Your task to perform on an android device: visit the assistant section in the google photos Image 0: 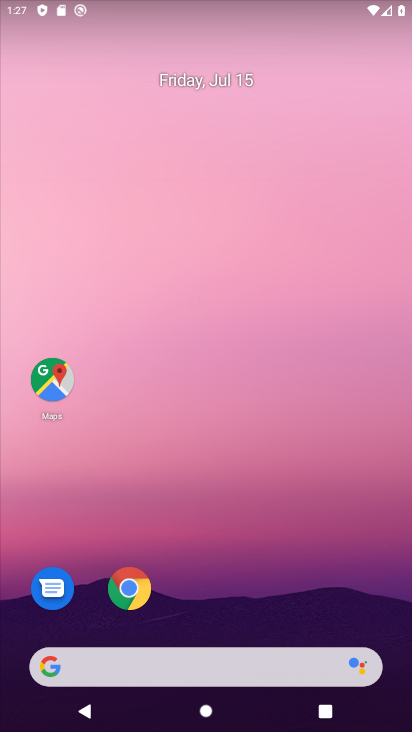
Step 0: drag from (206, 658) to (287, 45)
Your task to perform on an android device: visit the assistant section in the google photos Image 1: 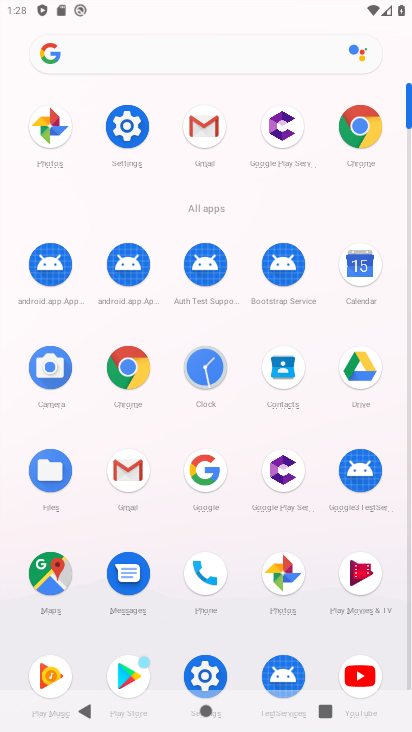
Step 1: click (283, 573)
Your task to perform on an android device: visit the assistant section in the google photos Image 2: 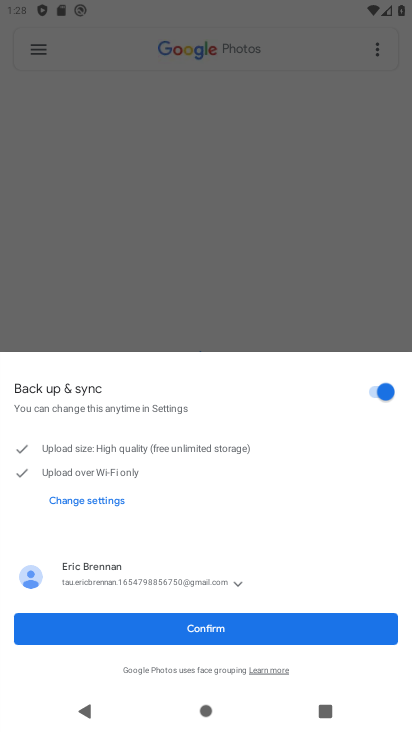
Step 2: click (197, 632)
Your task to perform on an android device: visit the assistant section in the google photos Image 3: 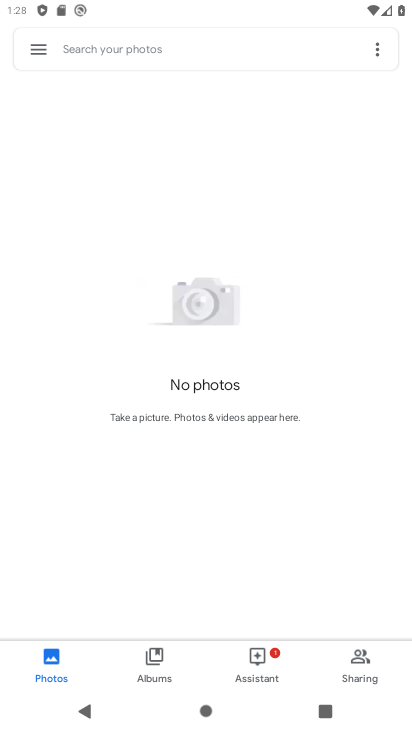
Step 3: click (260, 660)
Your task to perform on an android device: visit the assistant section in the google photos Image 4: 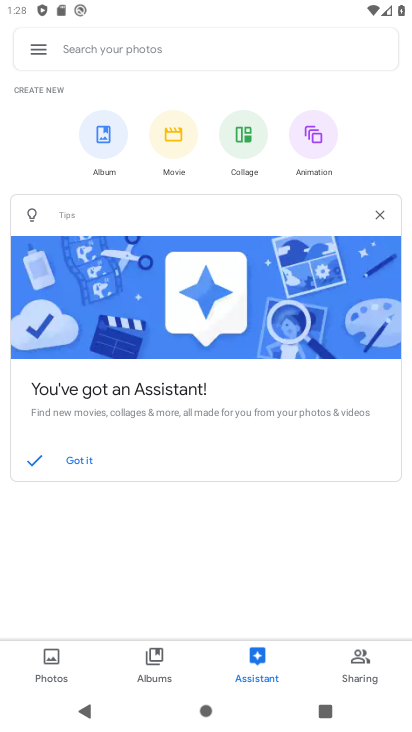
Step 4: task complete